Your task to perform on an android device: read, delete, or share a saved page in the chrome app Image 0: 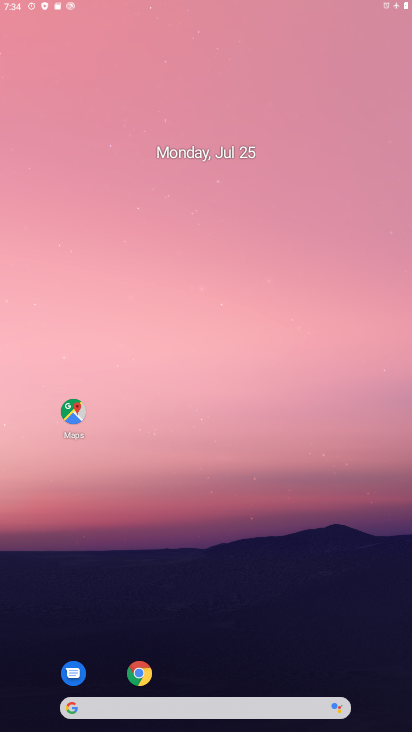
Step 0: drag from (362, 621) to (238, 2)
Your task to perform on an android device: read, delete, or share a saved page in the chrome app Image 1: 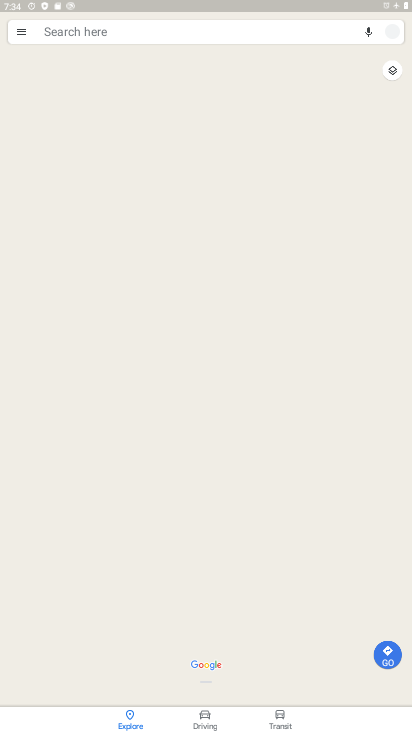
Step 1: press home button
Your task to perform on an android device: read, delete, or share a saved page in the chrome app Image 2: 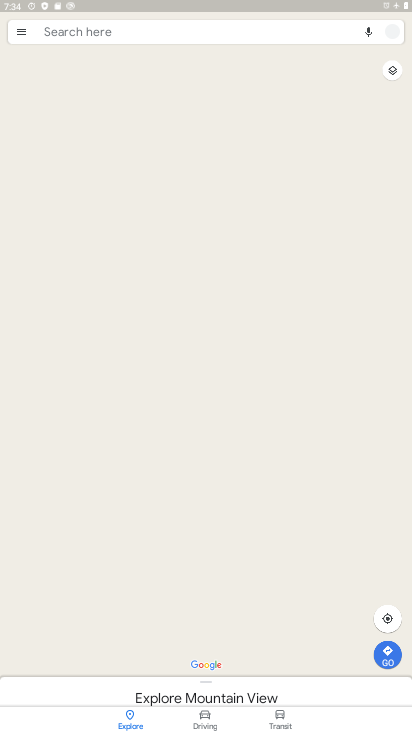
Step 2: drag from (376, 680) to (213, 30)
Your task to perform on an android device: read, delete, or share a saved page in the chrome app Image 3: 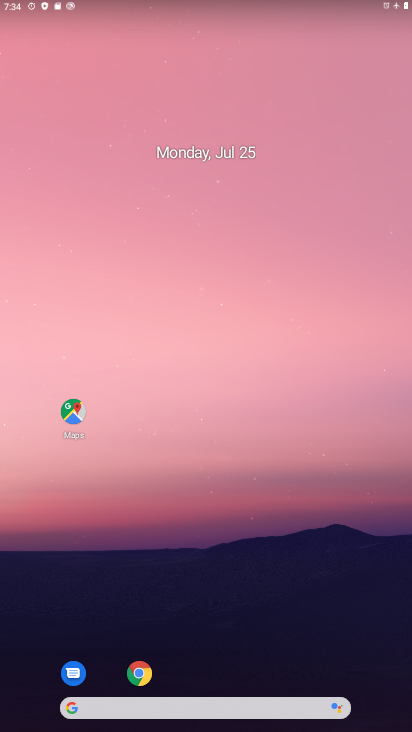
Step 3: drag from (339, 623) to (28, 126)
Your task to perform on an android device: read, delete, or share a saved page in the chrome app Image 4: 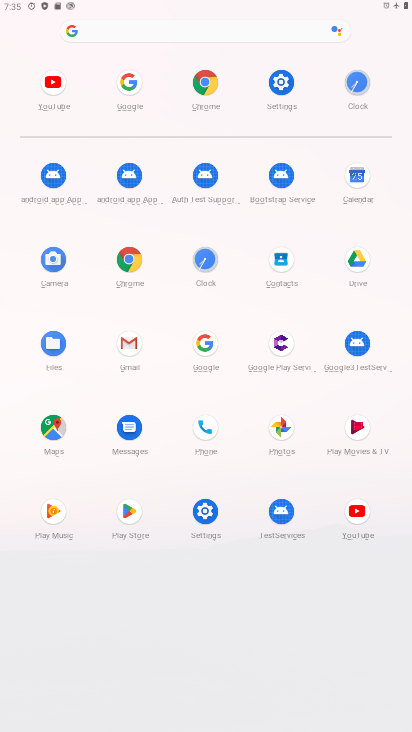
Step 4: click (135, 261)
Your task to perform on an android device: read, delete, or share a saved page in the chrome app Image 5: 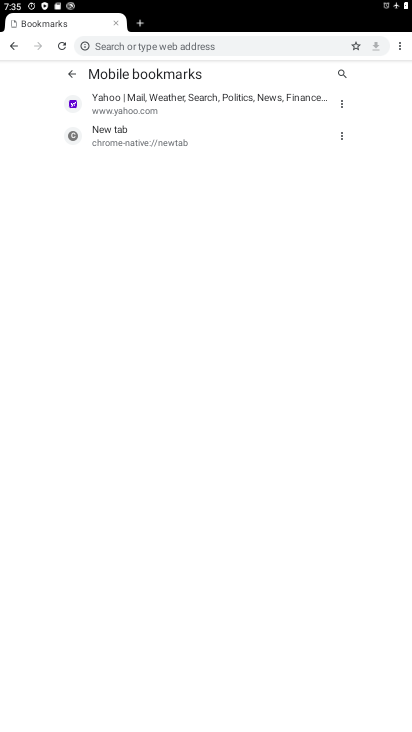
Step 5: task complete